Your task to perform on an android device: Open calendar and show me the second week of next month Image 0: 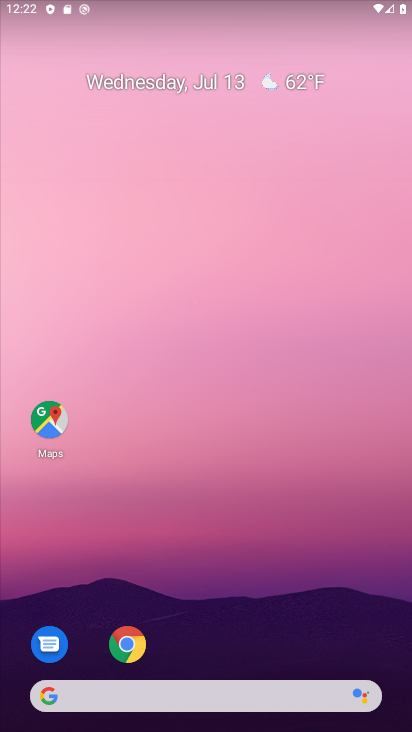
Step 0: drag from (198, 674) to (10, 556)
Your task to perform on an android device: Open calendar and show me the second week of next month Image 1: 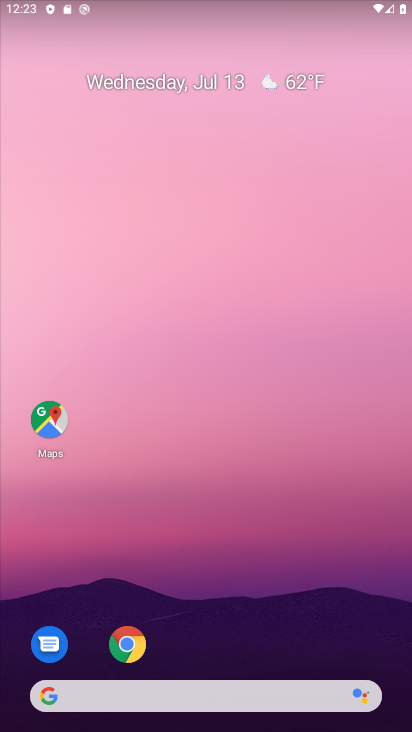
Step 1: drag from (227, 657) to (209, 238)
Your task to perform on an android device: Open calendar and show me the second week of next month Image 2: 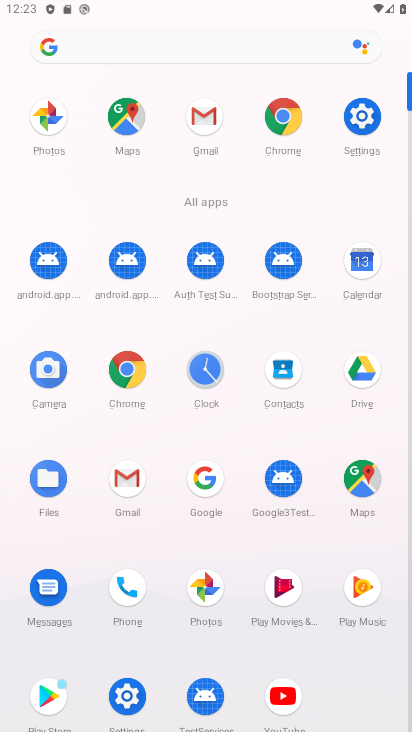
Step 2: click (344, 273)
Your task to perform on an android device: Open calendar and show me the second week of next month Image 3: 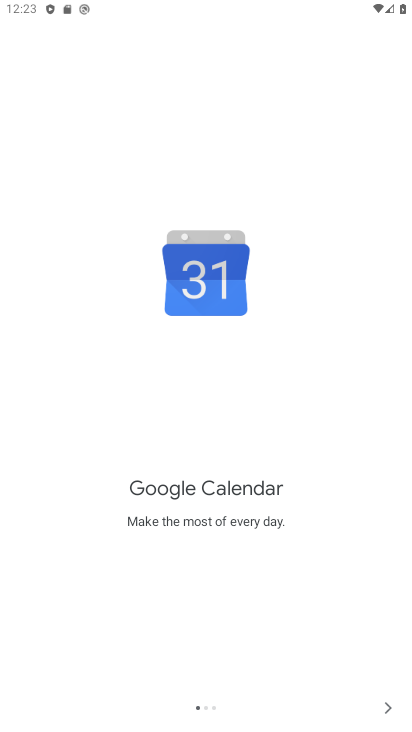
Step 3: click (390, 710)
Your task to perform on an android device: Open calendar and show me the second week of next month Image 4: 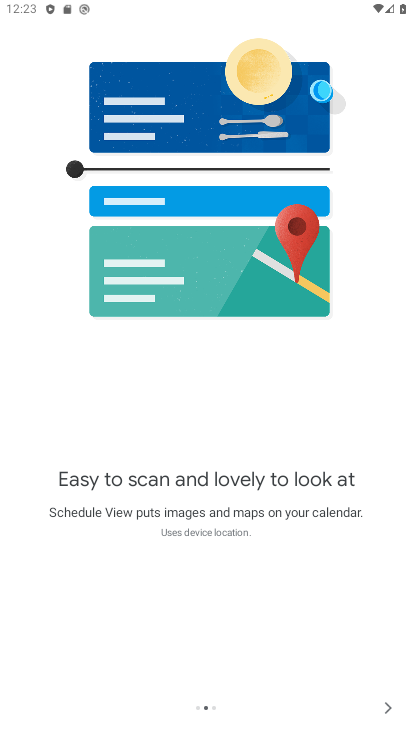
Step 4: click (392, 705)
Your task to perform on an android device: Open calendar and show me the second week of next month Image 5: 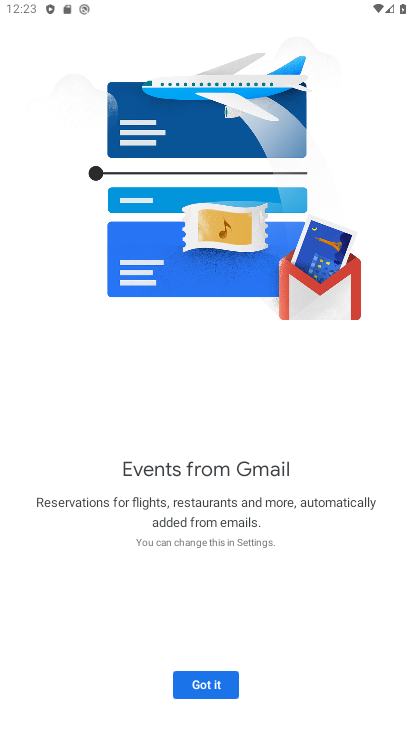
Step 5: click (202, 682)
Your task to perform on an android device: Open calendar and show me the second week of next month Image 6: 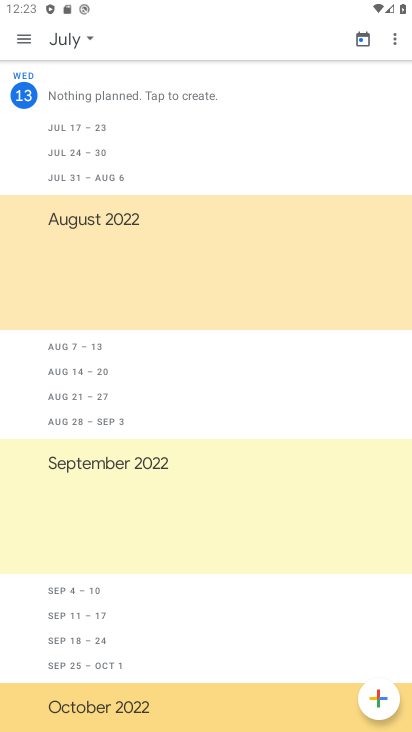
Step 6: click (25, 39)
Your task to perform on an android device: Open calendar and show me the second week of next month Image 7: 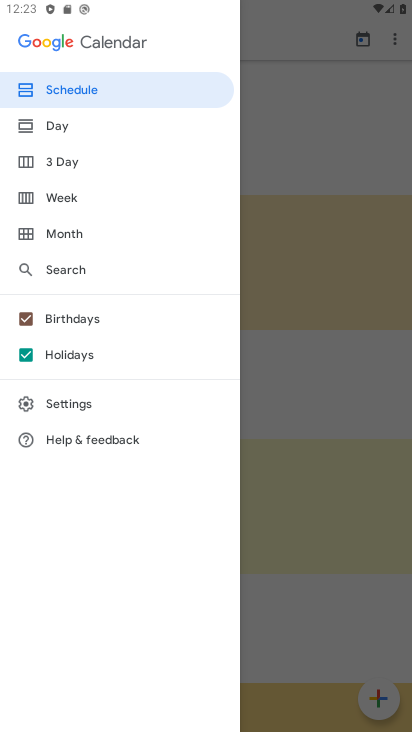
Step 7: click (57, 193)
Your task to perform on an android device: Open calendar and show me the second week of next month Image 8: 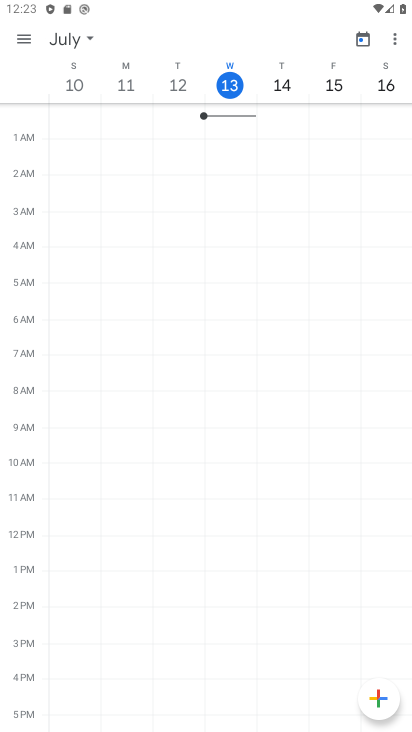
Step 8: task complete